Your task to perform on an android device: Go to Yahoo.com Image 0: 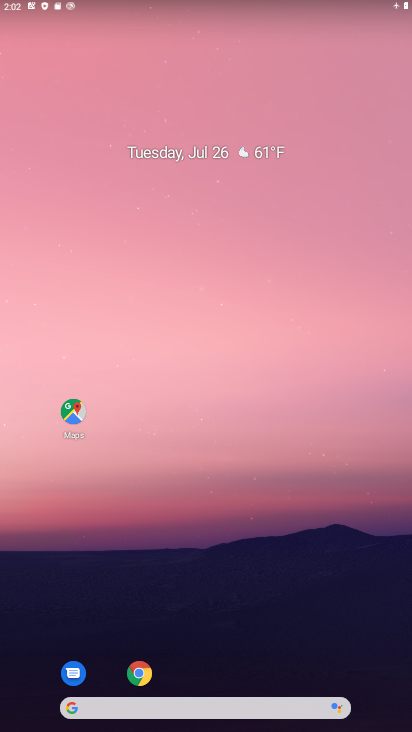
Step 0: drag from (196, 629) to (295, 139)
Your task to perform on an android device: Go to Yahoo.com Image 1: 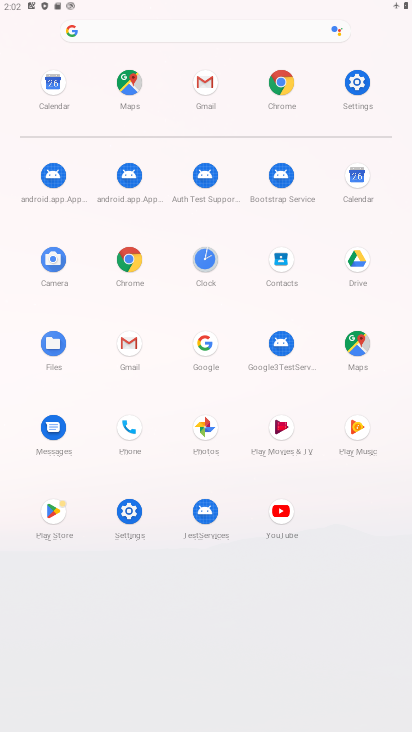
Step 1: click (167, 29)
Your task to perform on an android device: Go to Yahoo.com Image 2: 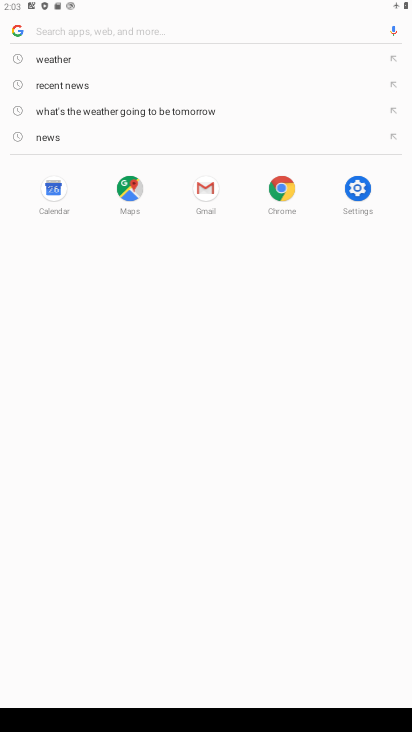
Step 2: type "yahoo.com"
Your task to perform on an android device: Go to Yahoo.com Image 3: 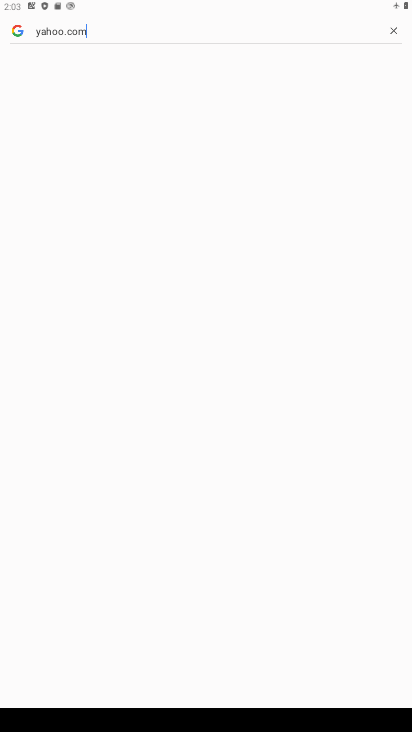
Step 3: click (193, 114)
Your task to perform on an android device: Go to Yahoo.com Image 4: 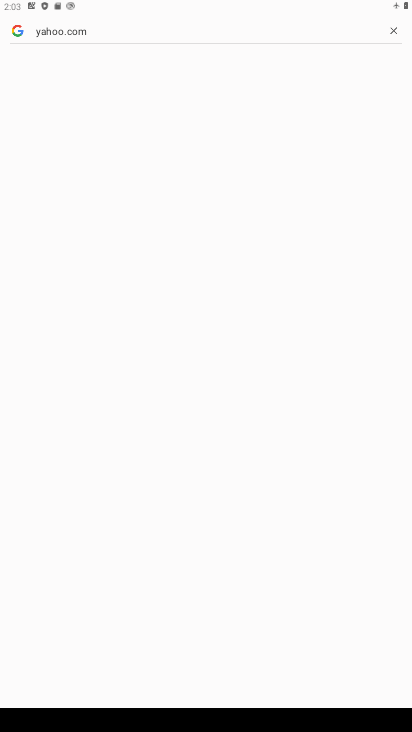
Step 4: task complete